Your task to perform on an android device: clear history in the chrome app Image 0: 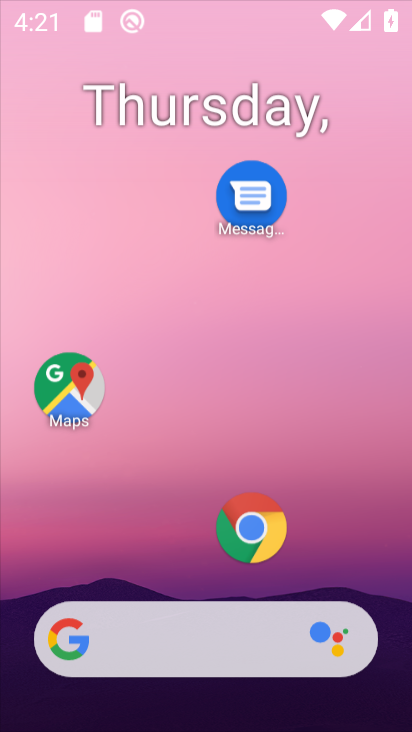
Step 0: click (227, 537)
Your task to perform on an android device: clear history in the chrome app Image 1: 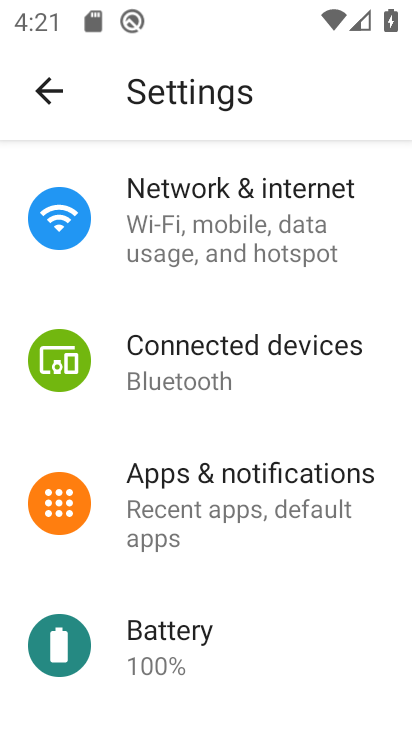
Step 1: press back button
Your task to perform on an android device: clear history in the chrome app Image 2: 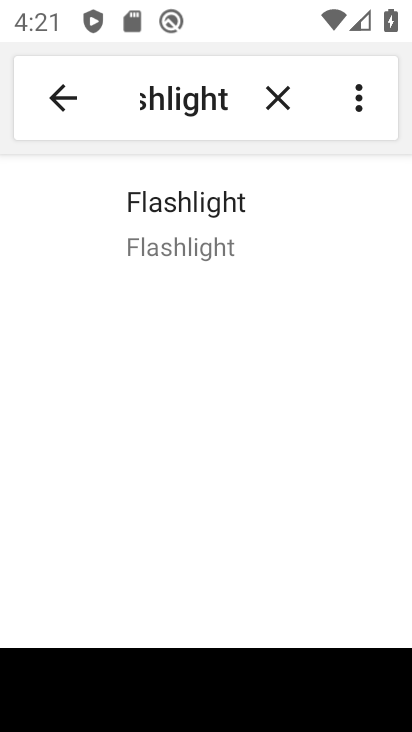
Step 2: press back button
Your task to perform on an android device: clear history in the chrome app Image 3: 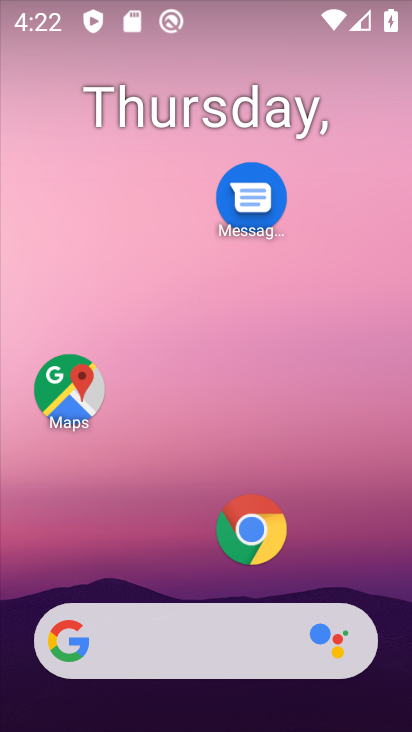
Step 3: click (250, 528)
Your task to perform on an android device: clear history in the chrome app Image 4: 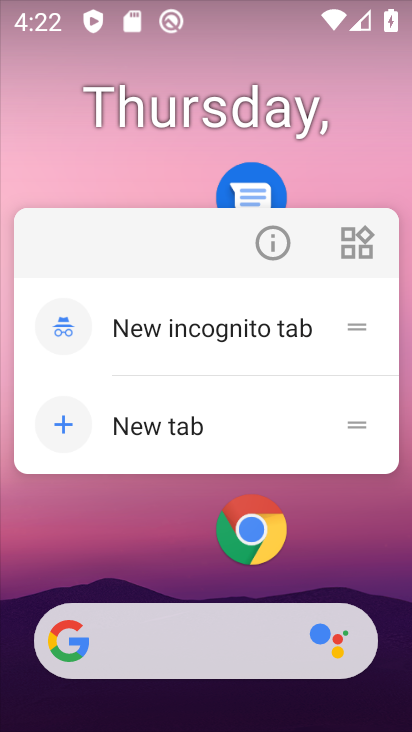
Step 4: click (255, 528)
Your task to perform on an android device: clear history in the chrome app Image 5: 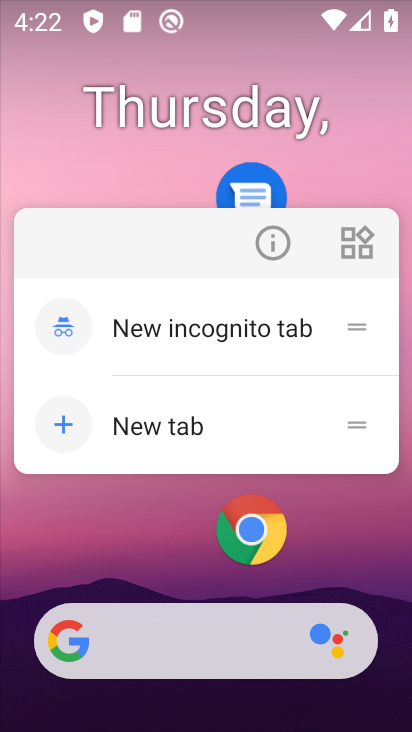
Step 5: click (251, 527)
Your task to perform on an android device: clear history in the chrome app Image 6: 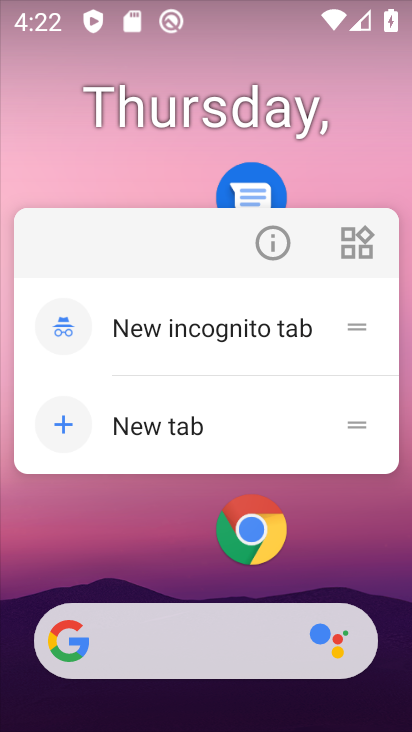
Step 6: click (246, 538)
Your task to perform on an android device: clear history in the chrome app Image 7: 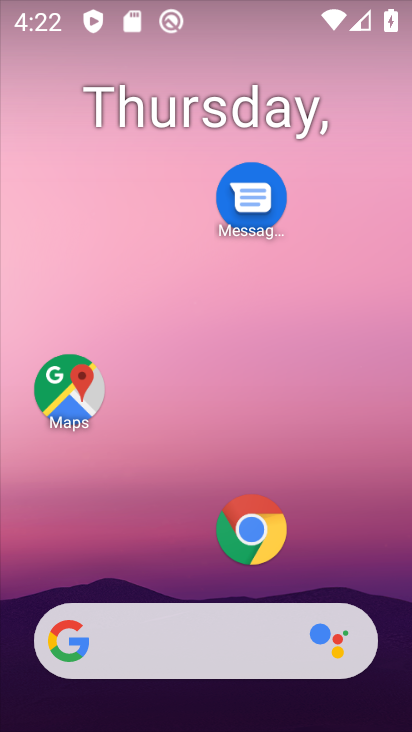
Step 7: click (245, 525)
Your task to perform on an android device: clear history in the chrome app Image 8: 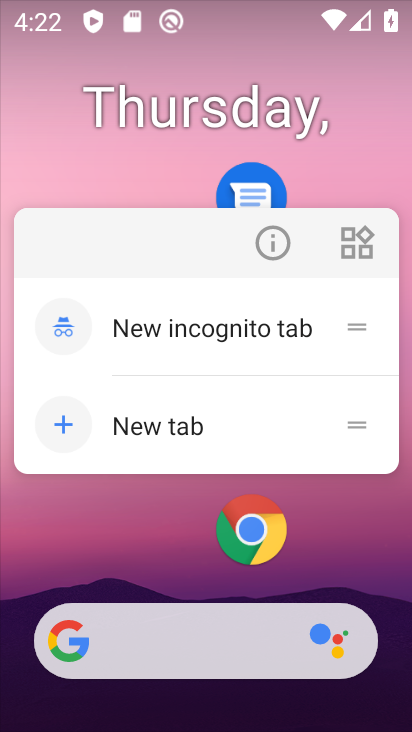
Step 8: click (253, 530)
Your task to perform on an android device: clear history in the chrome app Image 9: 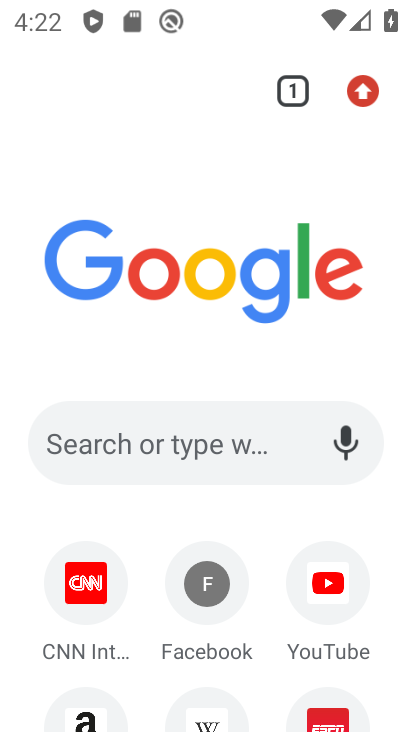
Step 9: drag from (360, 83) to (139, 310)
Your task to perform on an android device: clear history in the chrome app Image 10: 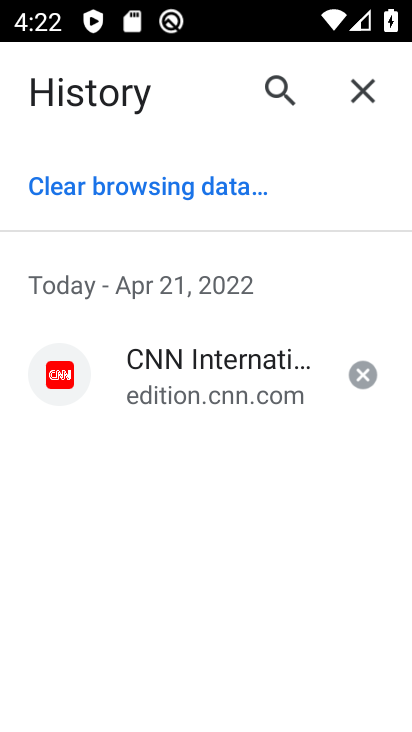
Step 10: click (160, 175)
Your task to perform on an android device: clear history in the chrome app Image 11: 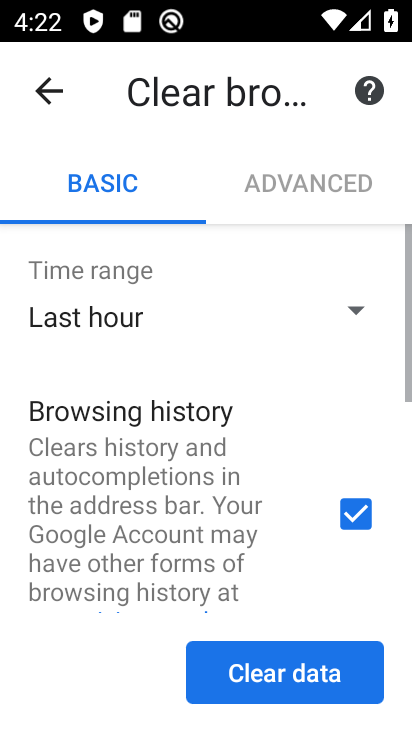
Step 11: click (305, 676)
Your task to perform on an android device: clear history in the chrome app Image 12: 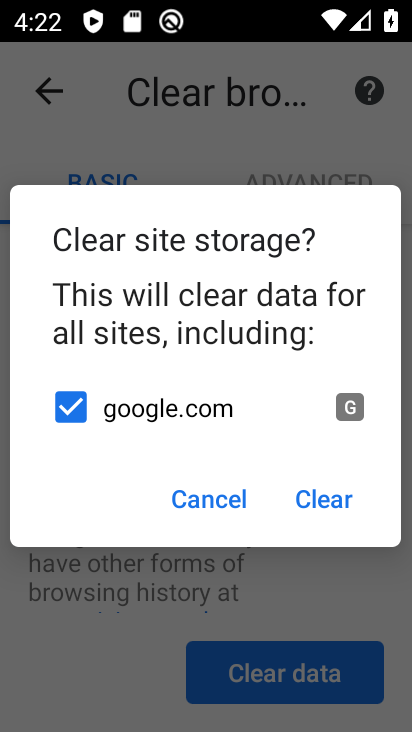
Step 12: click (316, 501)
Your task to perform on an android device: clear history in the chrome app Image 13: 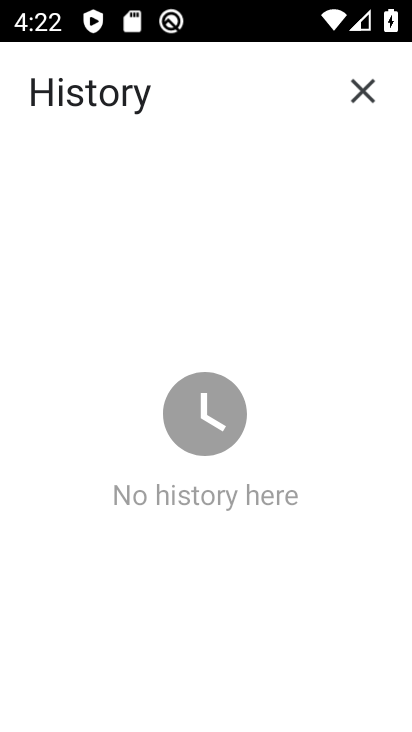
Step 13: task complete